Your task to perform on an android device: What's on my calendar today? Image 0: 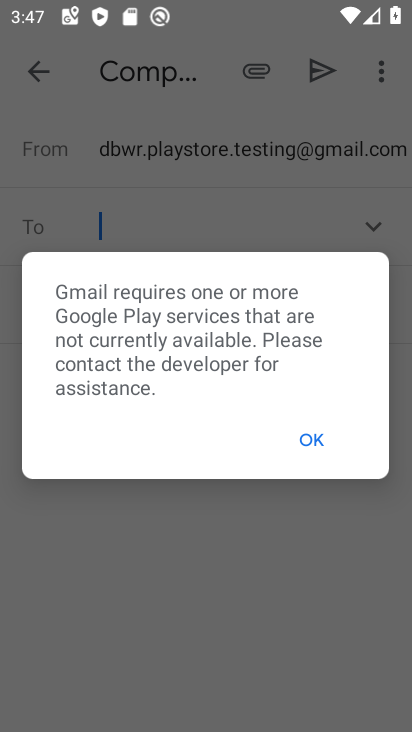
Step 0: press home button
Your task to perform on an android device: What's on my calendar today? Image 1: 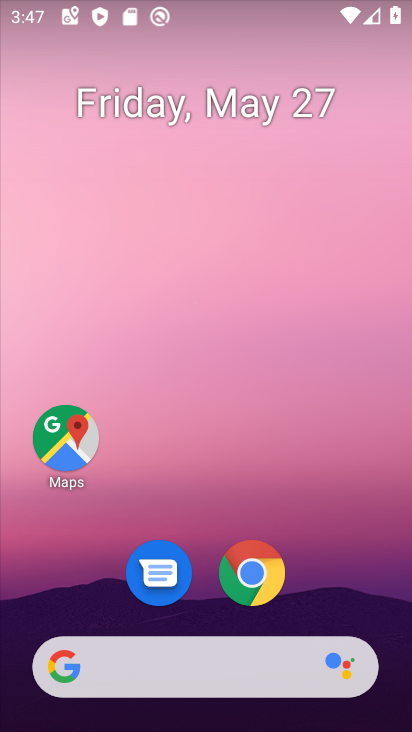
Step 1: drag from (345, 525) to (281, 39)
Your task to perform on an android device: What's on my calendar today? Image 2: 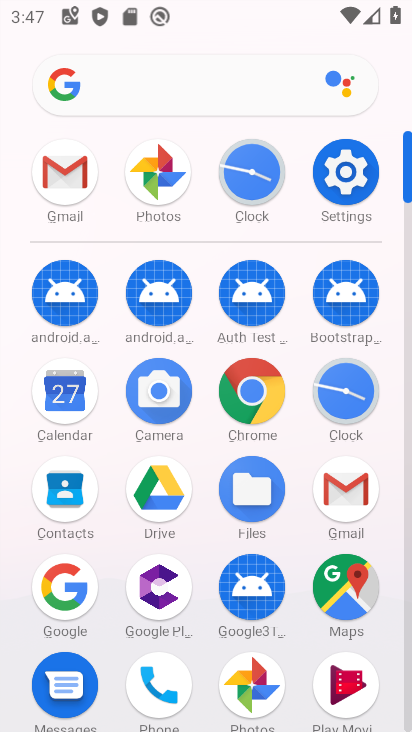
Step 2: click (61, 382)
Your task to perform on an android device: What's on my calendar today? Image 3: 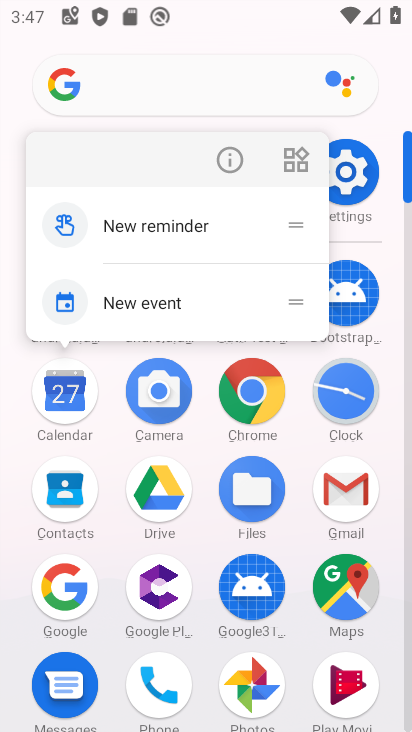
Step 3: click (59, 400)
Your task to perform on an android device: What's on my calendar today? Image 4: 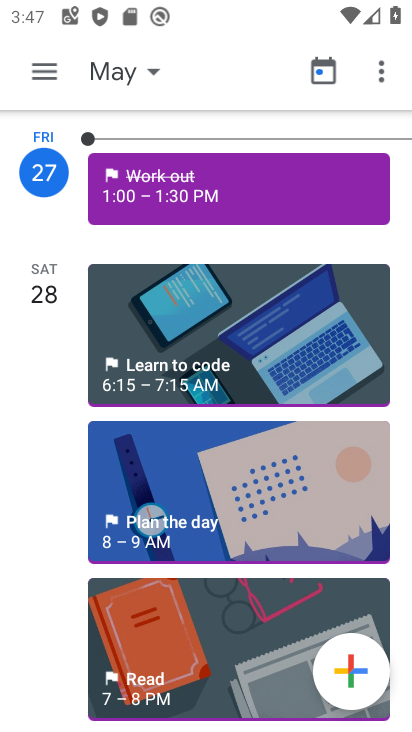
Step 4: task complete